Your task to perform on an android device: Open the map Image 0: 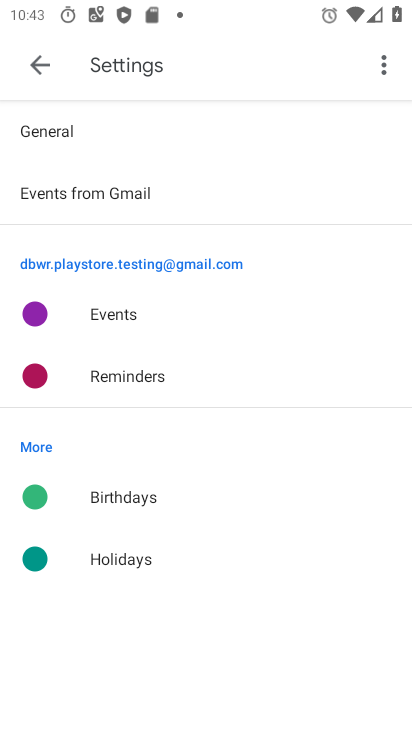
Step 0: press home button
Your task to perform on an android device: Open the map Image 1: 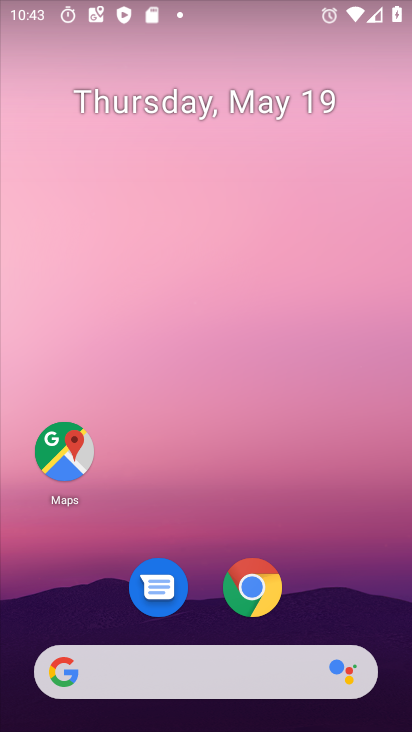
Step 1: drag from (346, 564) to (319, 168)
Your task to perform on an android device: Open the map Image 2: 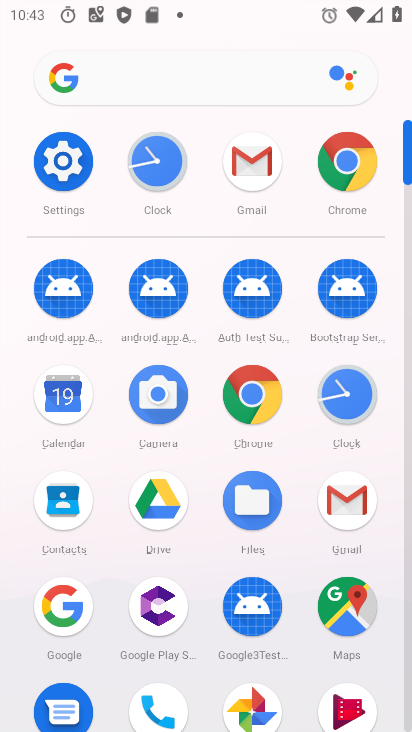
Step 2: click (343, 587)
Your task to perform on an android device: Open the map Image 3: 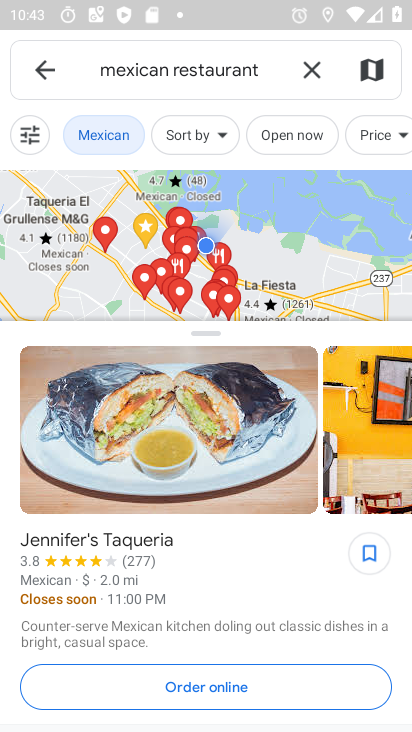
Step 3: click (308, 66)
Your task to perform on an android device: Open the map Image 4: 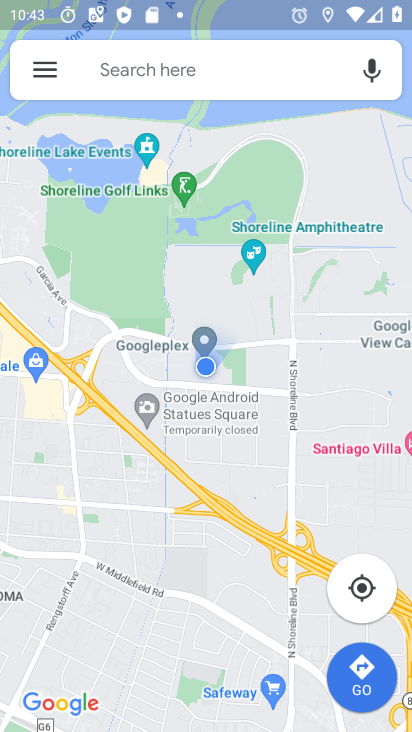
Step 4: task complete